Your task to perform on an android device: turn off location Image 0: 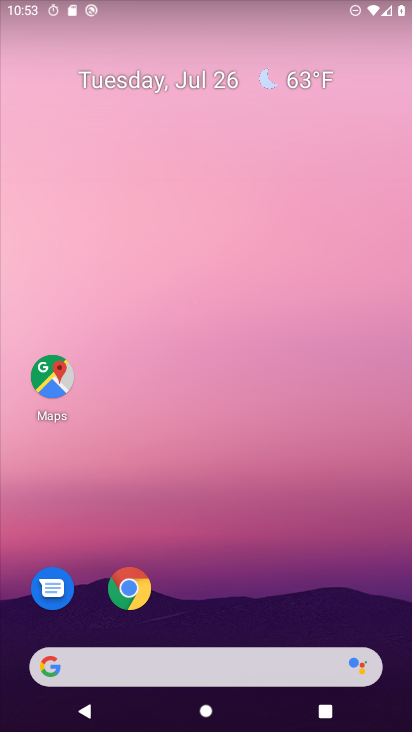
Step 0: drag from (283, 593) to (282, 5)
Your task to perform on an android device: turn off location Image 1: 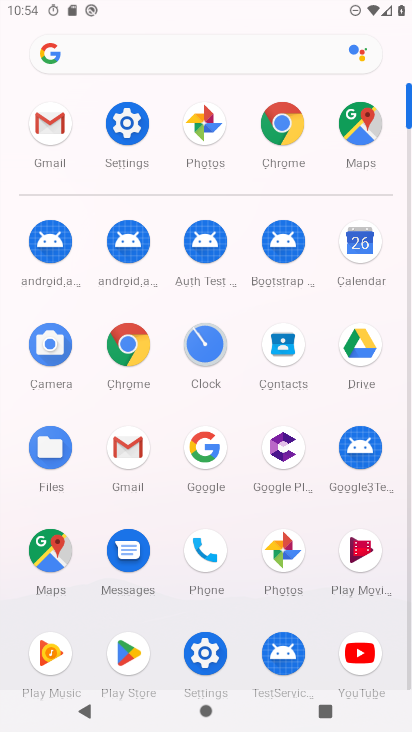
Step 1: click (203, 652)
Your task to perform on an android device: turn off location Image 2: 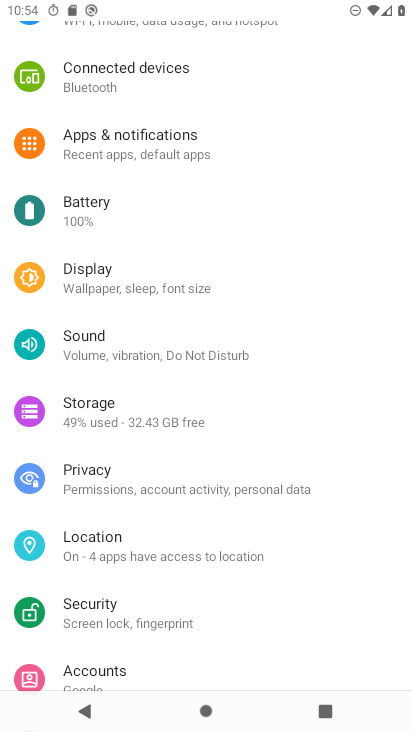
Step 2: click (98, 534)
Your task to perform on an android device: turn off location Image 3: 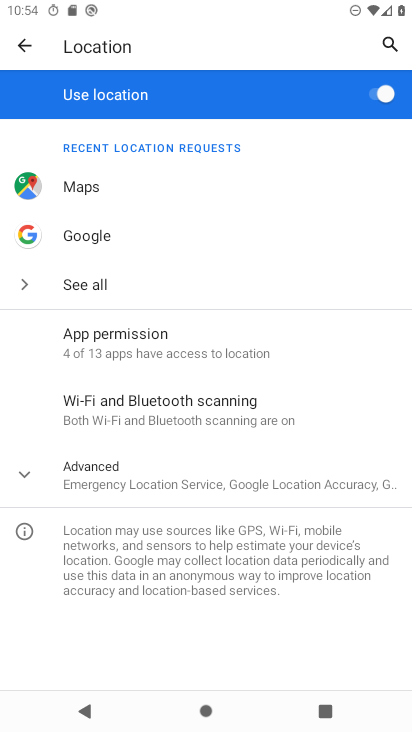
Step 3: click (387, 102)
Your task to perform on an android device: turn off location Image 4: 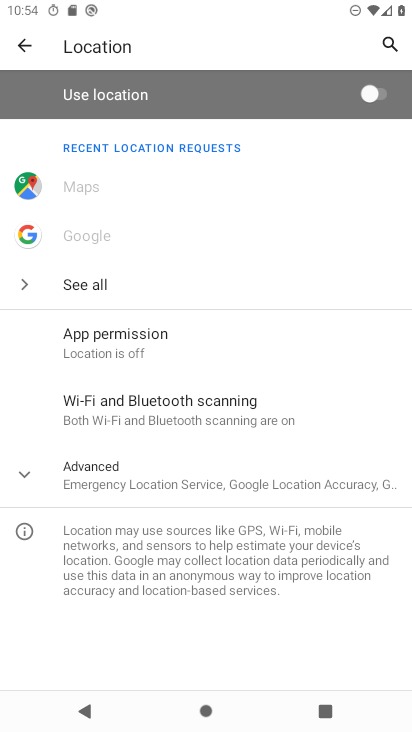
Step 4: task complete